Your task to perform on an android device: How much does a 3 bedroom apartment rent for in Boston? Image 0: 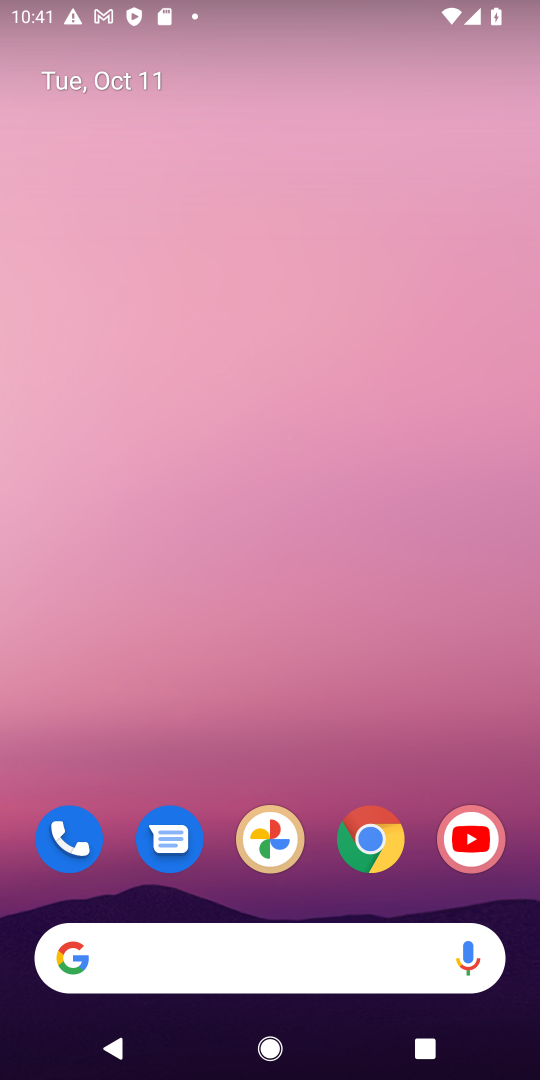
Step 0: drag from (364, 854) to (287, 363)
Your task to perform on an android device: How much does a 3 bedroom apartment rent for in Boston? Image 1: 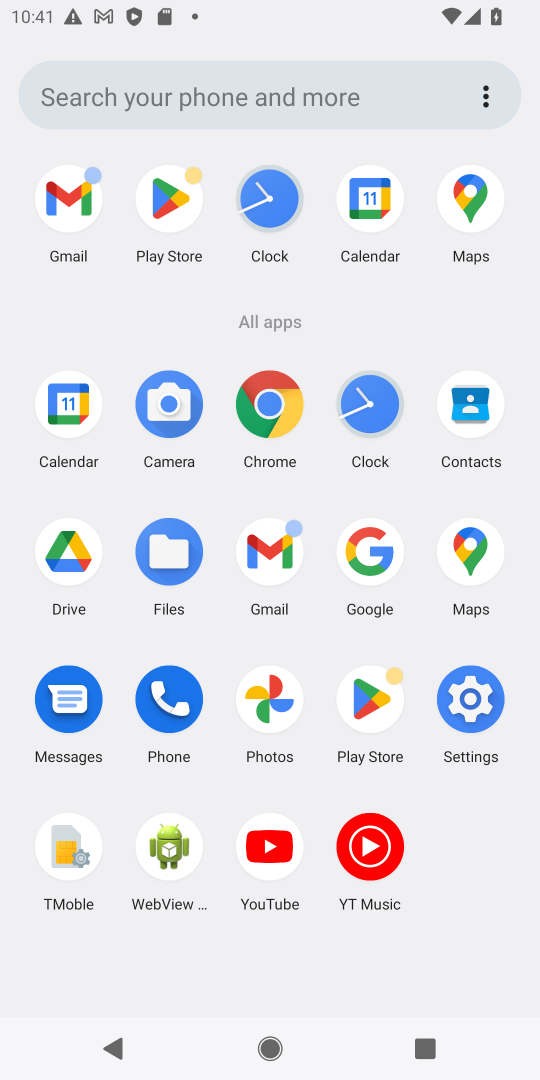
Step 1: click (384, 582)
Your task to perform on an android device: How much does a 3 bedroom apartment rent for in Boston? Image 2: 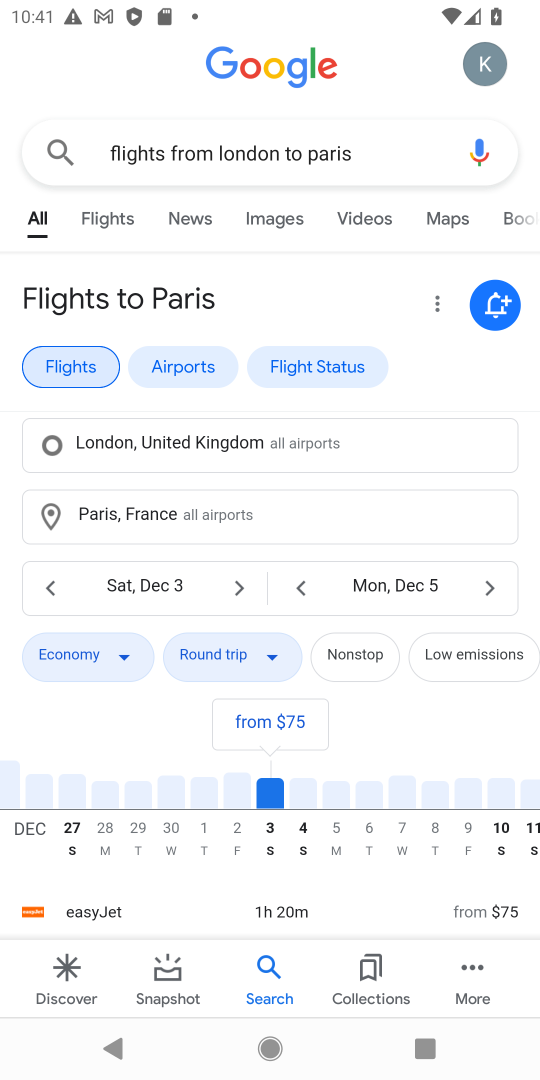
Step 2: click (385, 146)
Your task to perform on an android device: How much does a 3 bedroom apartment rent for in Boston? Image 3: 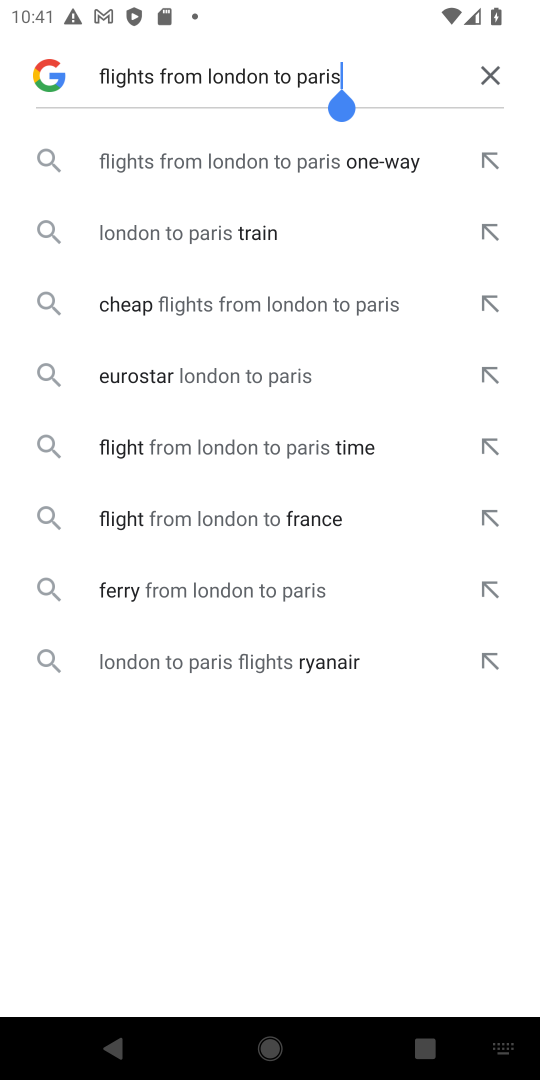
Step 3: click (477, 73)
Your task to perform on an android device: How much does a 3 bedroom apartment rent for in Boston? Image 4: 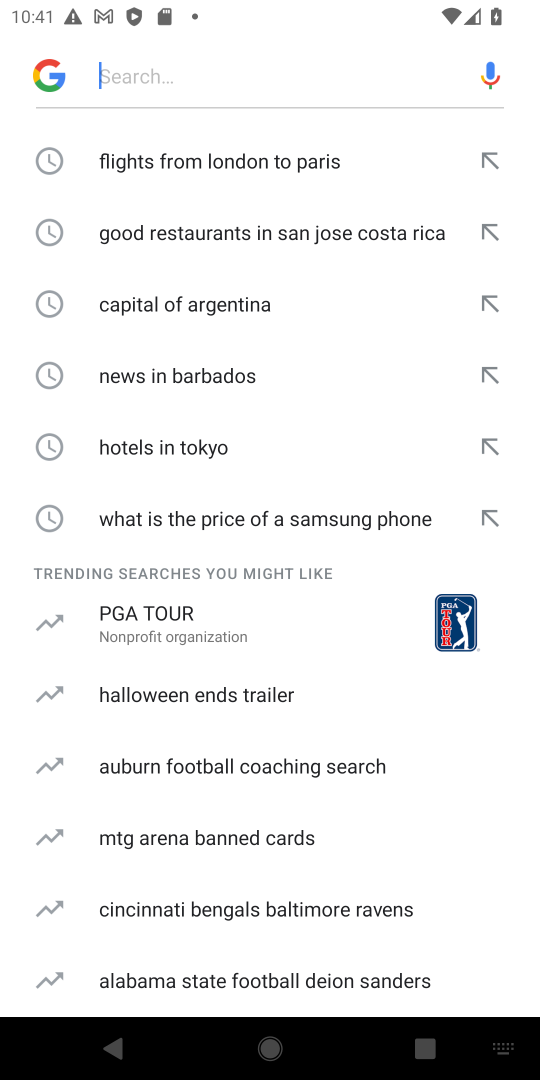
Step 4: type "How much does a 3 bedroom apartment rent for in Boston?"
Your task to perform on an android device: How much does a 3 bedroom apartment rent for in Boston? Image 5: 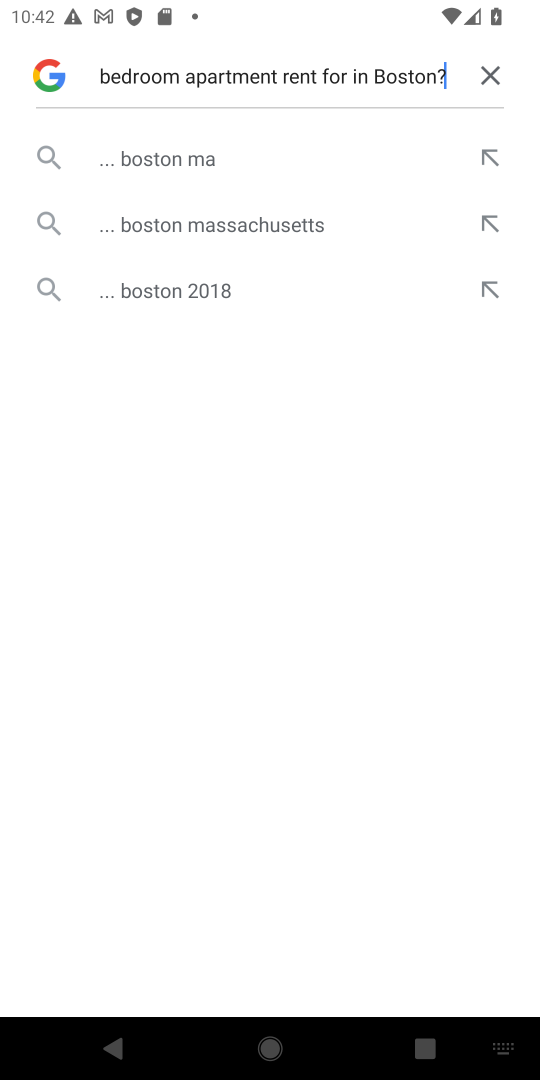
Step 5: click (253, 224)
Your task to perform on an android device: How much does a 3 bedroom apartment rent for in Boston? Image 6: 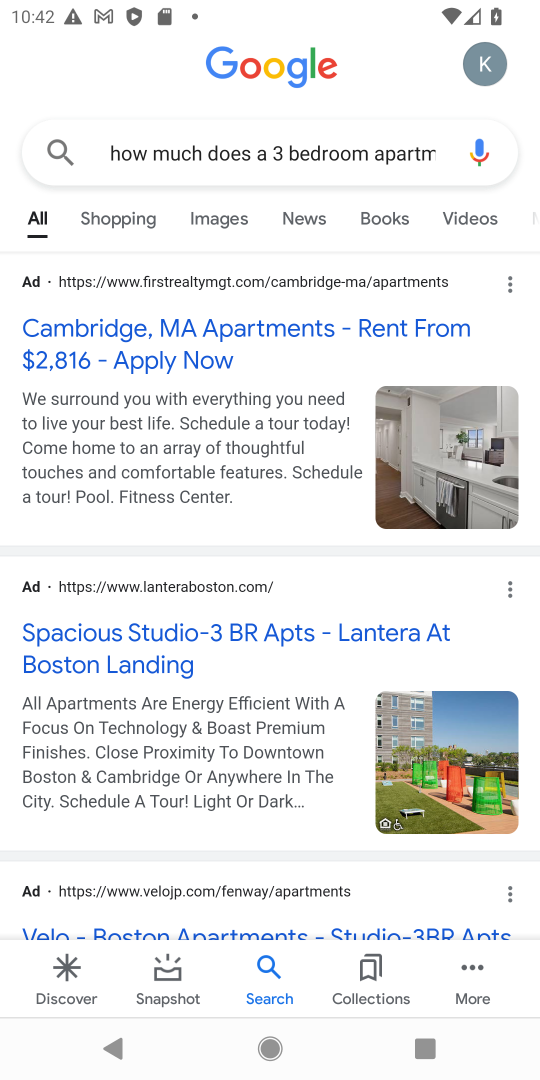
Step 6: task complete